Your task to perform on an android device: Open Reddit.com Image 0: 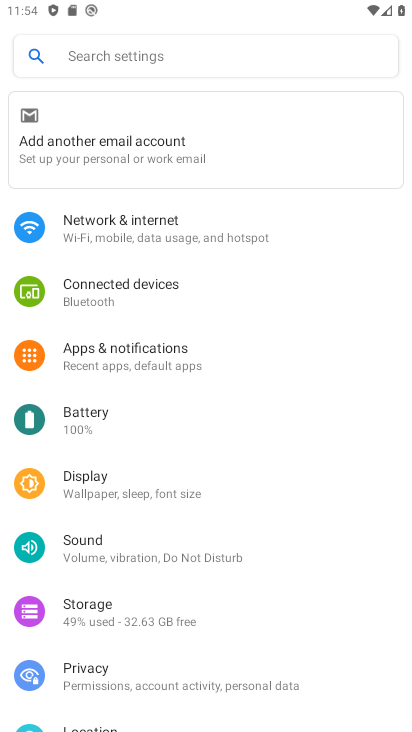
Step 0: press home button
Your task to perform on an android device: Open Reddit.com Image 1: 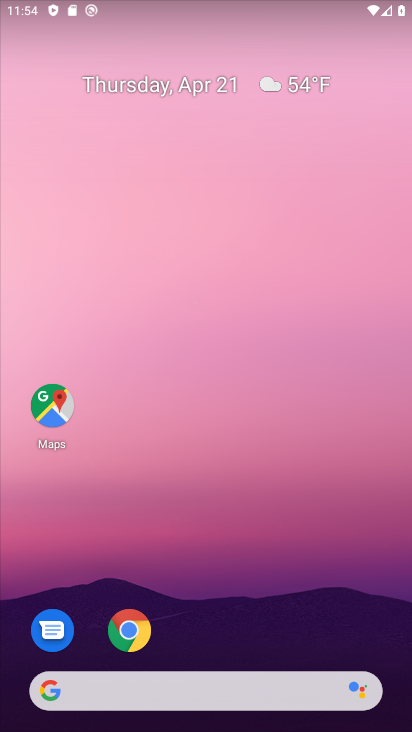
Step 1: click (137, 627)
Your task to perform on an android device: Open Reddit.com Image 2: 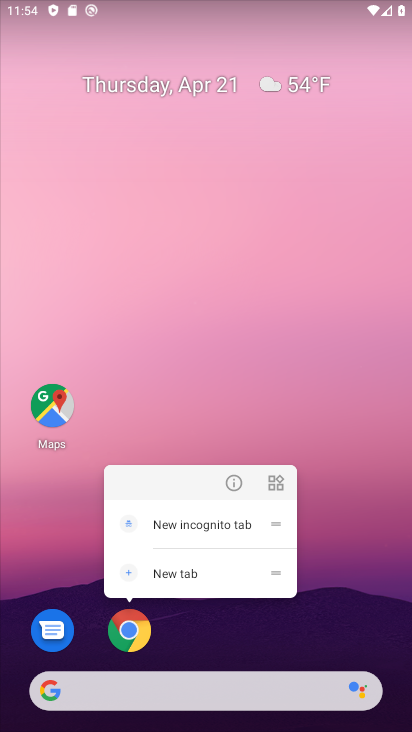
Step 2: click (124, 633)
Your task to perform on an android device: Open Reddit.com Image 3: 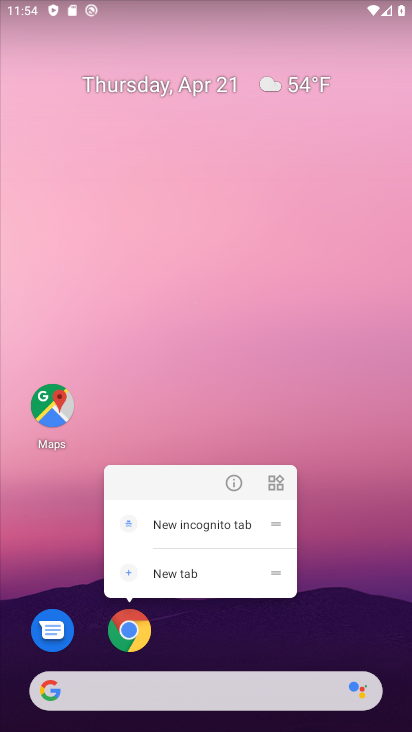
Step 3: click (126, 631)
Your task to perform on an android device: Open Reddit.com Image 4: 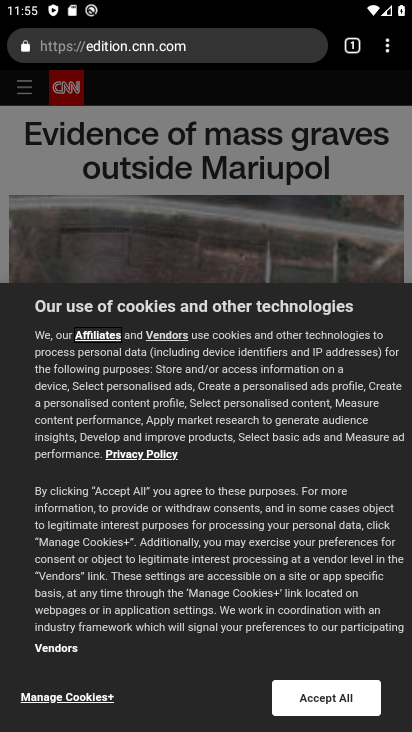
Step 4: click (331, 102)
Your task to perform on an android device: Open Reddit.com Image 5: 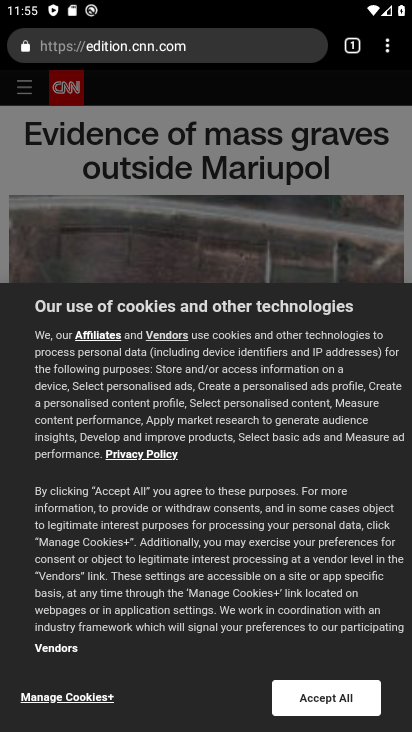
Step 5: click (360, 45)
Your task to perform on an android device: Open Reddit.com Image 6: 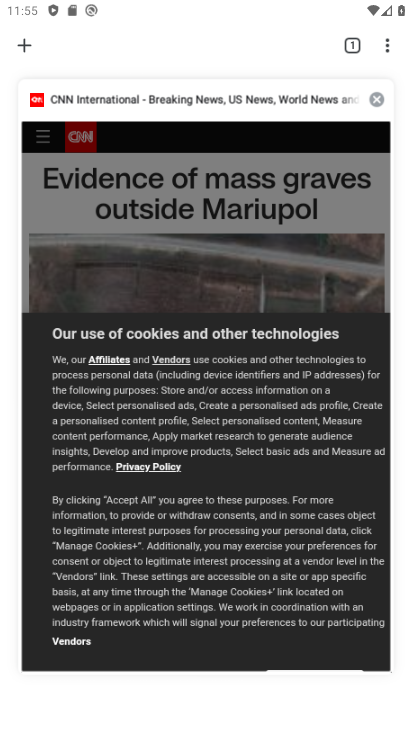
Step 6: click (24, 46)
Your task to perform on an android device: Open Reddit.com Image 7: 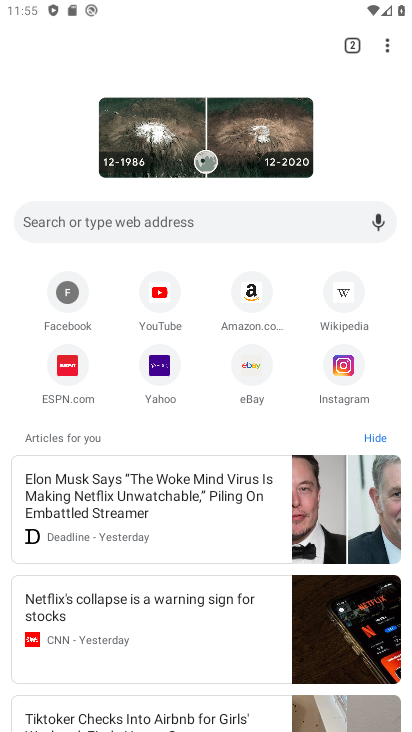
Step 7: click (49, 216)
Your task to perform on an android device: Open Reddit.com Image 8: 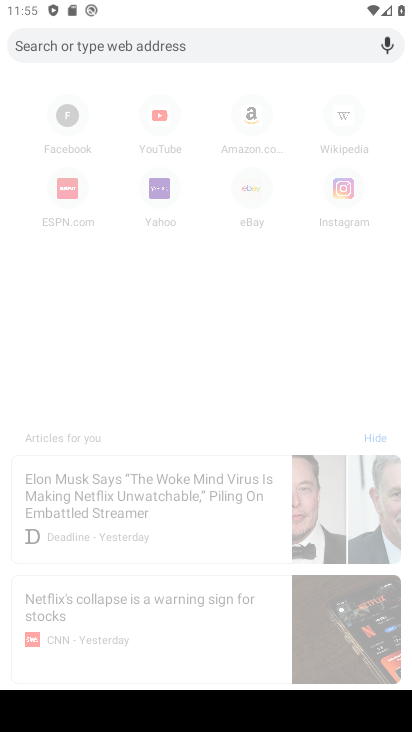
Step 8: type "reddit.com"
Your task to perform on an android device: Open Reddit.com Image 9: 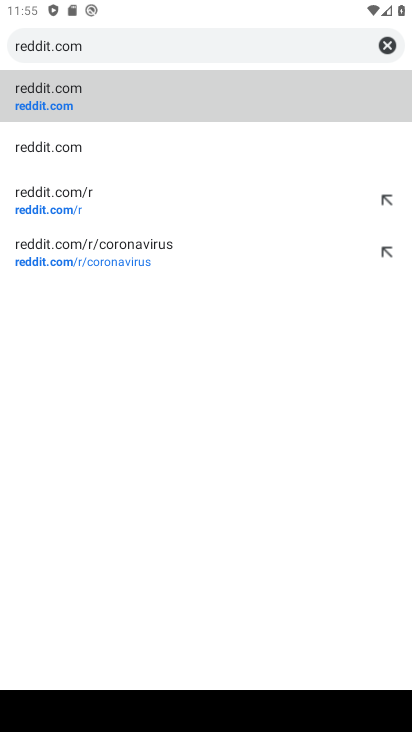
Step 9: click (55, 105)
Your task to perform on an android device: Open Reddit.com Image 10: 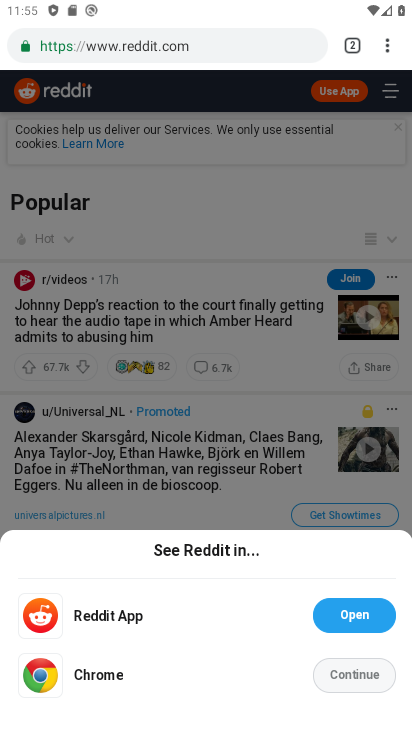
Step 10: click (293, 628)
Your task to perform on an android device: Open Reddit.com Image 11: 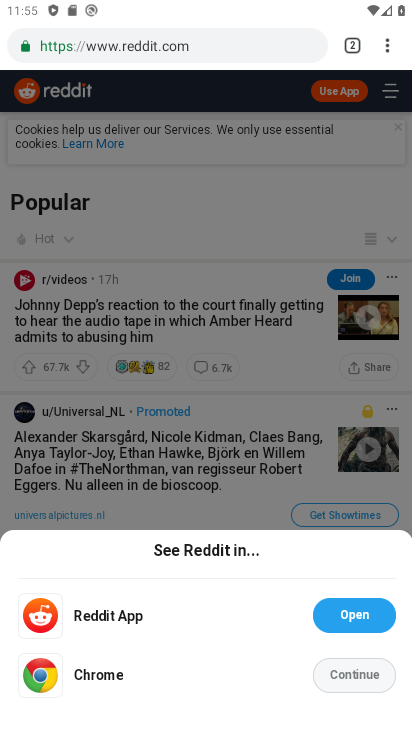
Step 11: click (357, 607)
Your task to perform on an android device: Open Reddit.com Image 12: 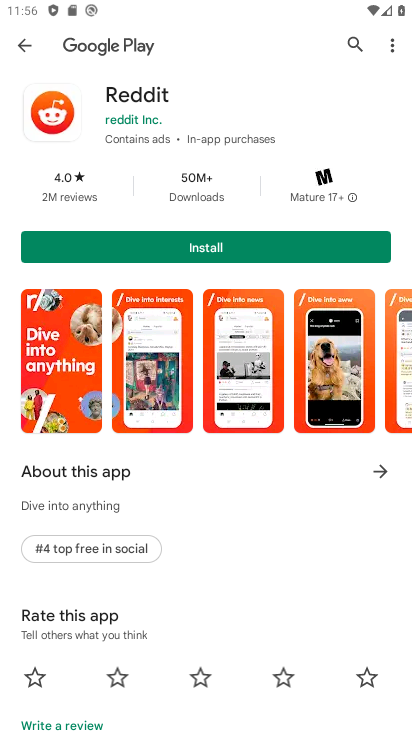
Step 12: task complete